Your task to perform on an android device: set the stopwatch Image 0: 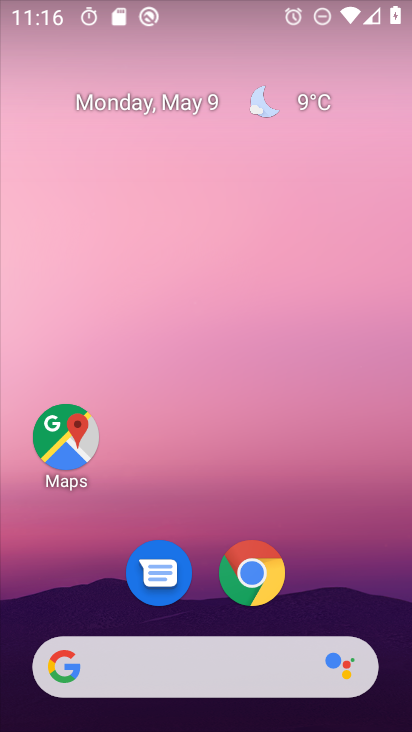
Step 0: drag from (366, 578) to (382, 139)
Your task to perform on an android device: set the stopwatch Image 1: 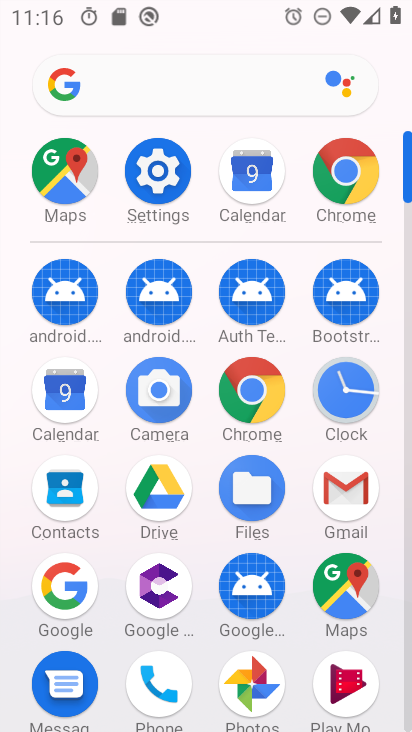
Step 1: click (317, 387)
Your task to perform on an android device: set the stopwatch Image 2: 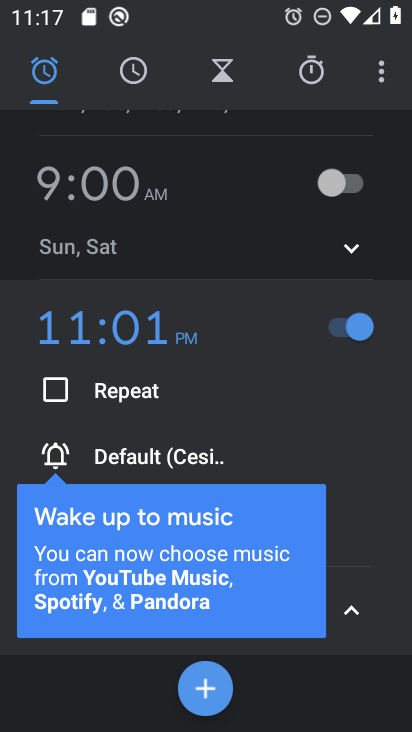
Step 2: click (223, 80)
Your task to perform on an android device: set the stopwatch Image 3: 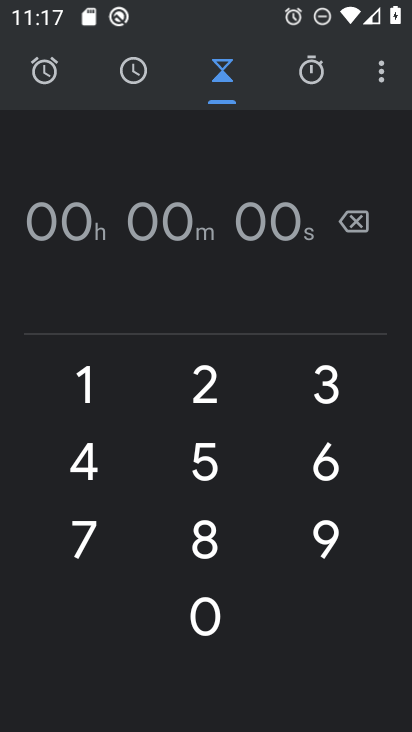
Step 3: click (223, 79)
Your task to perform on an android device: set the stopwatch Image 4: 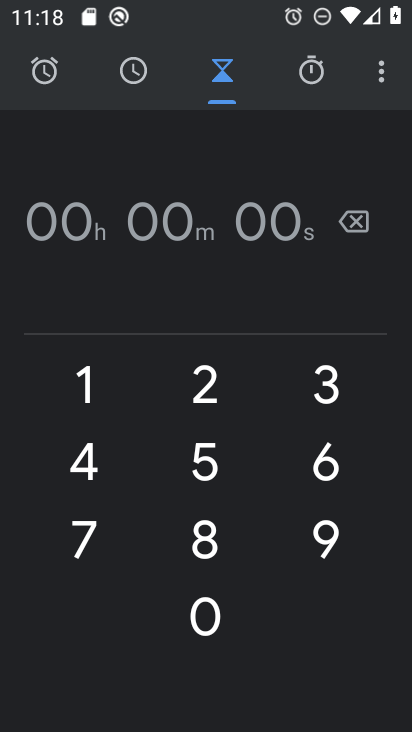
Step 4: click (309, 64)
Your task to perform on an android device: set the stopwatch Image 5: 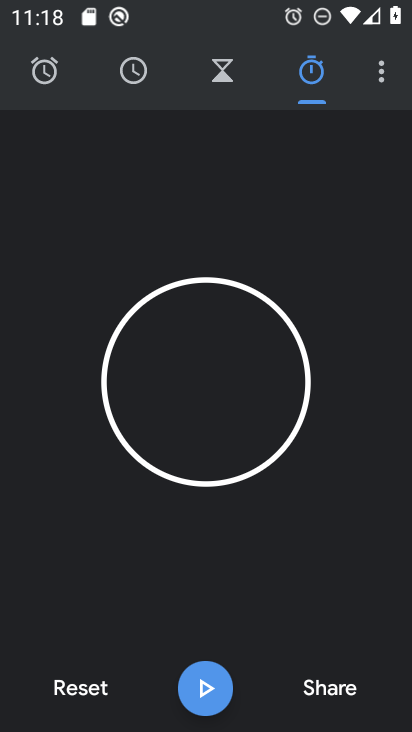
Step 5: task complete